Your task to perform on an android device: Open Maps and search for coffee Image 0: 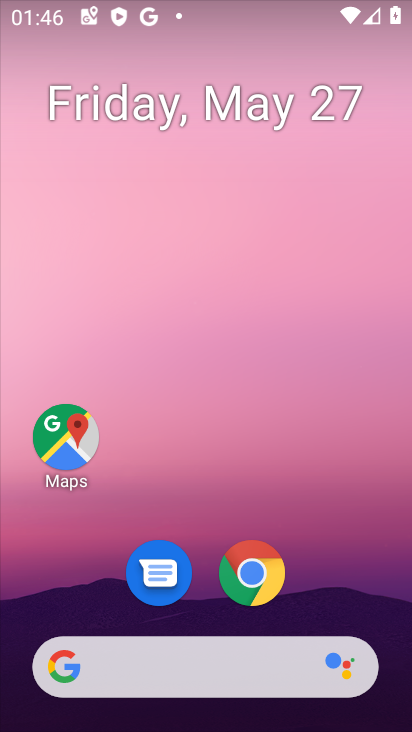
Step 0: drag from (199, 625) to (201, 148)
Your task to perform on an android device: Open Maps and search for coffee Image 1: 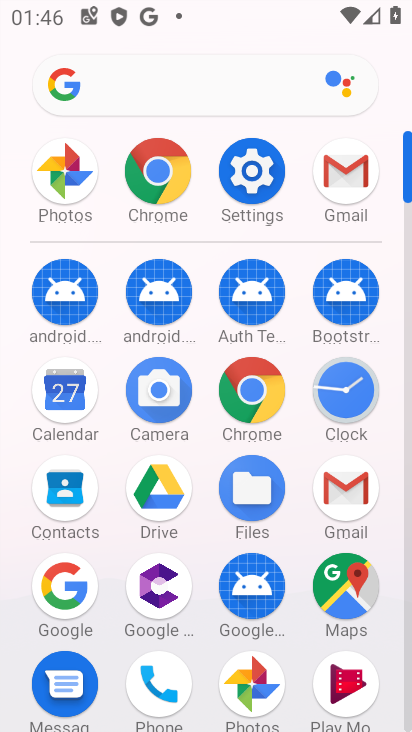
Step 1: click (354, 580)
Your task to perform on an android device: Open Maps and search for coffee Image 2: 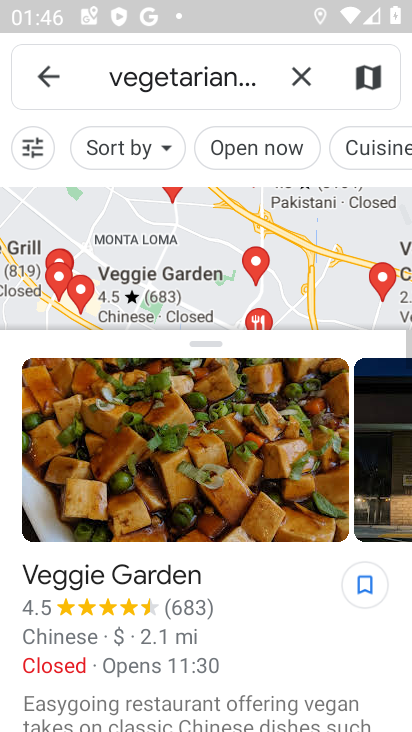
Step 2: click (303, 75)
Your task to perform on an android device: Open Maps and search for coffee Image 3: 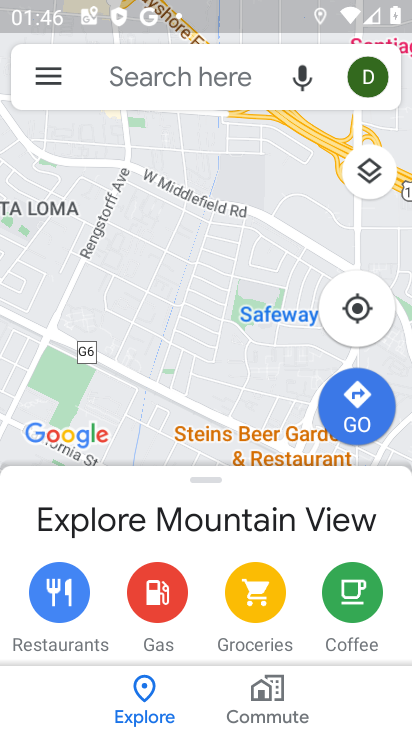
Step 3: click (242, 85)
Your task to perform on an android device: Open Maps and search for coffee Image 4: 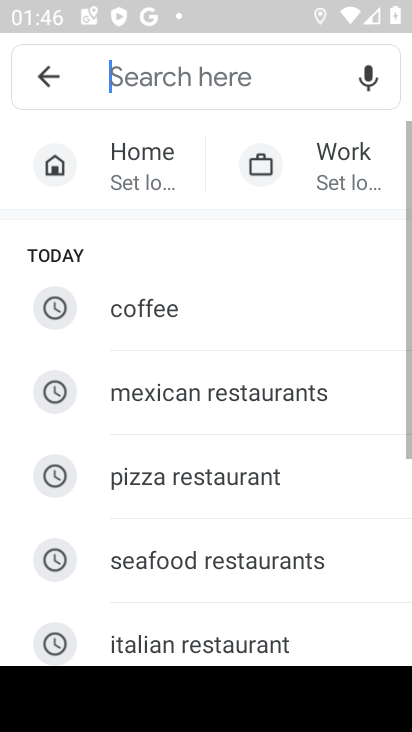
Step 4: click (179, 300)
Your task to perform on an android device: Open Maps and search for coffee Image 5: 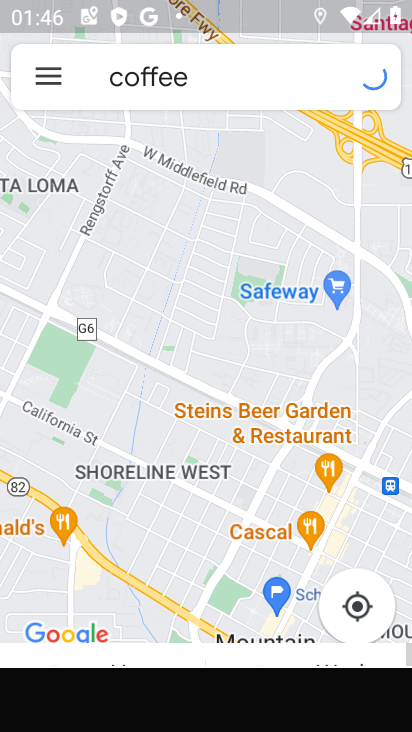
Step 5: task complete